Your task to perform on an android device: Open maps Image 0: 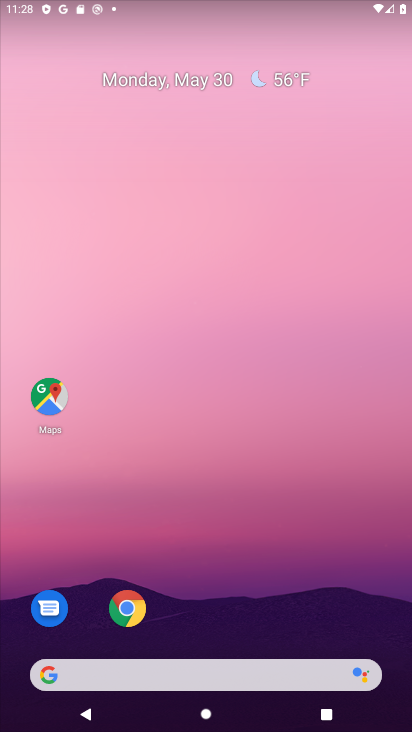
Step 0: drag from (241, 607) to (253, 105)
Your task to perform on an android device: Open maps Image 1: 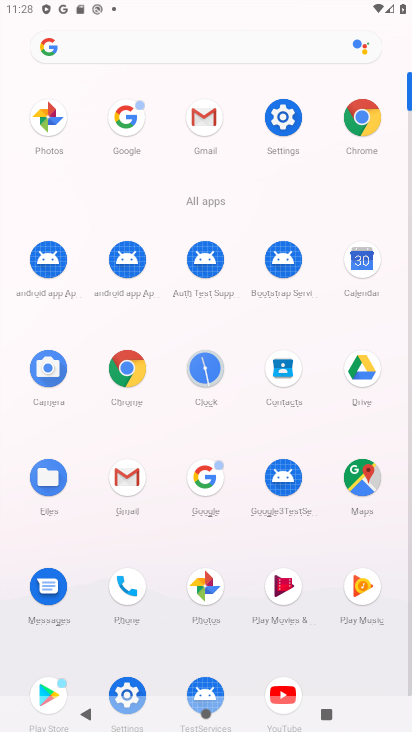
Step 1: click (361, 476)
Your task to perform on an android device: Open maps Image 2: 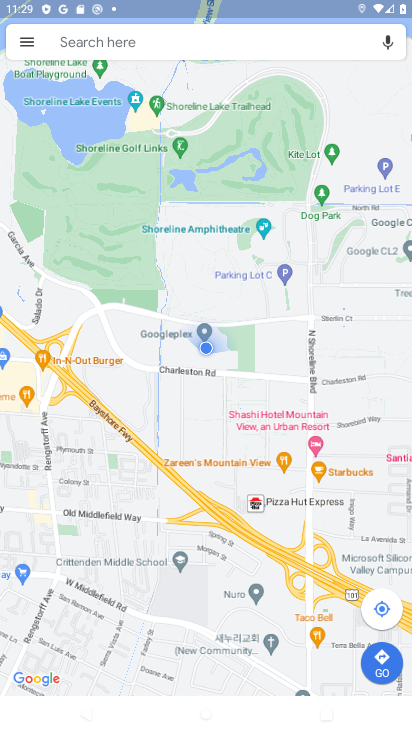
Step 2: task complete